Your task to perform on an android device: Search for sushi restaurants on Maps Image 0: 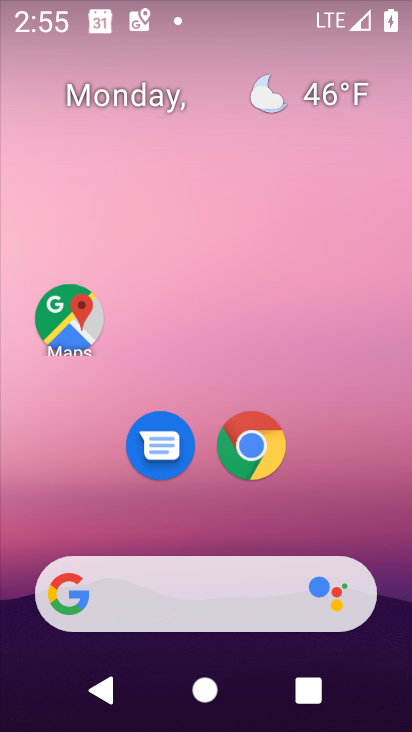
Step 0: click (72, 312)
Your task to perform on an android device: Search for sushi restaurants on Maps Image 1: 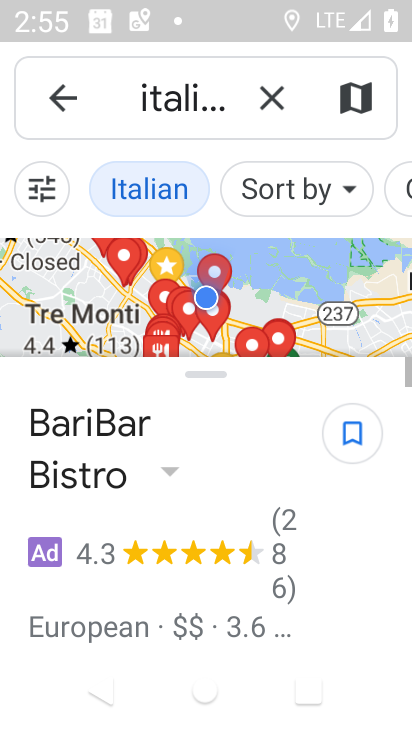
Step 1: click (277, 103)
Your task to perform on an android device: Search for sushi restaurants on Maps Image 2: 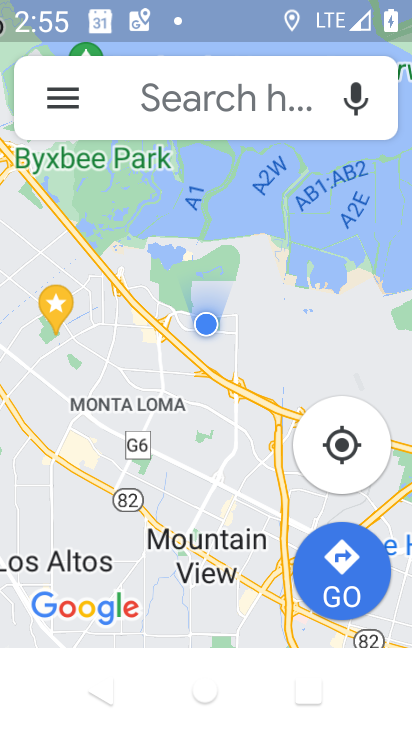
Step 2: click (202, 100)
Your task to perform on an android device: Search for sushi restaurants on Maps Image 3: 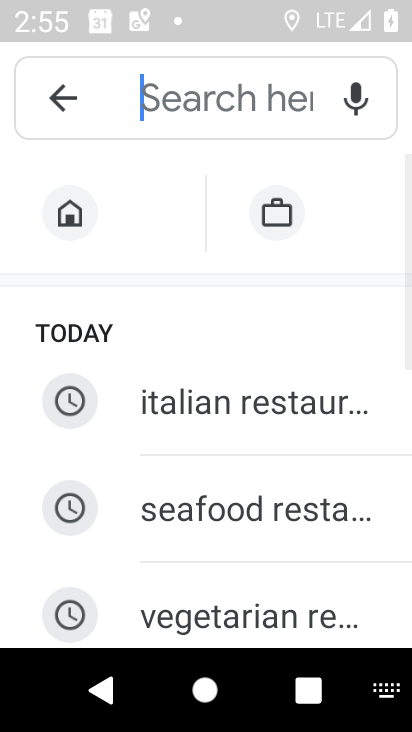
Step 3: drag from (244, 578) to (230, 209)
Your task to perform on an android device: Search for sushi restaurants on Maps Image 4: 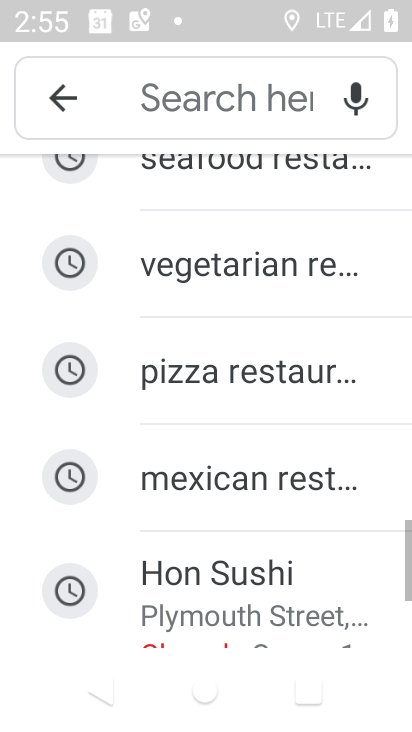
Step 4: drag from (244, 622) to (242, 274)
Your task to perform on an android device: Search for sushi restaurants on Maps Image 5: 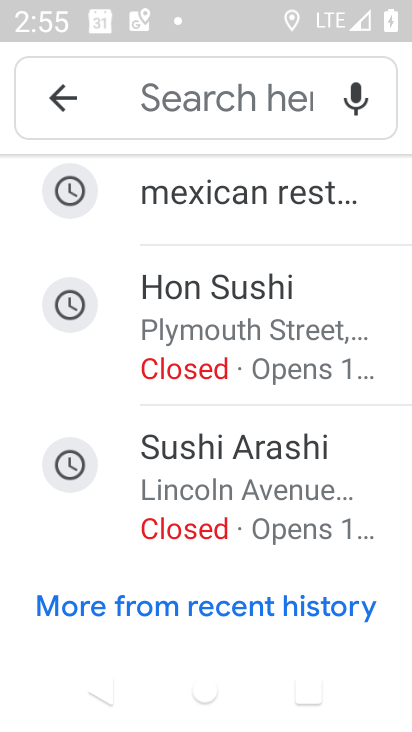
Step 5: click (233, 105)
Your task to perform on an android device: Search for sushi restaurants on Maps Image 6: 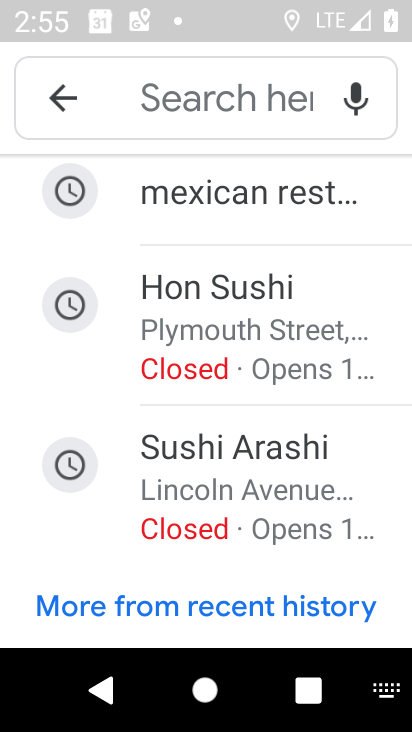
Step 6: type "sushi restaurant"
Your task to perform on an android device: Search for sushi restaurants on Maps Image 7: 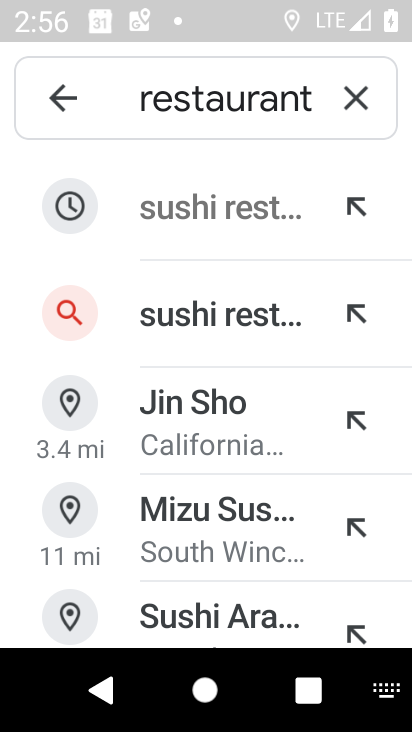
Step 7: click (270, 211)
Your task to perform on an android device: Search for sushi restaurants on Maps Image 8: 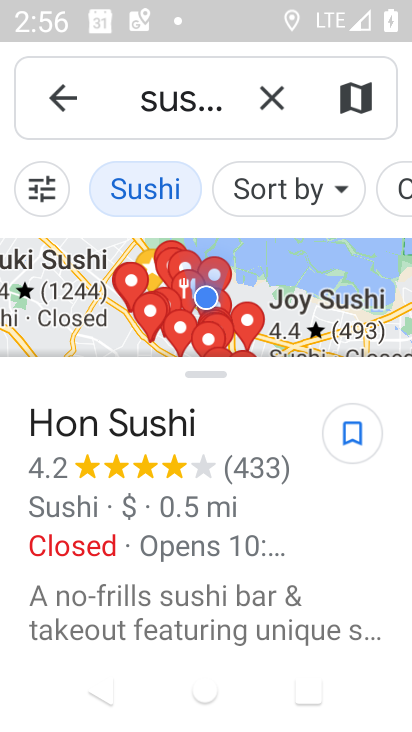
Step 8: task complete